Your task to perform on an android device: turn notification dots on Image 0: 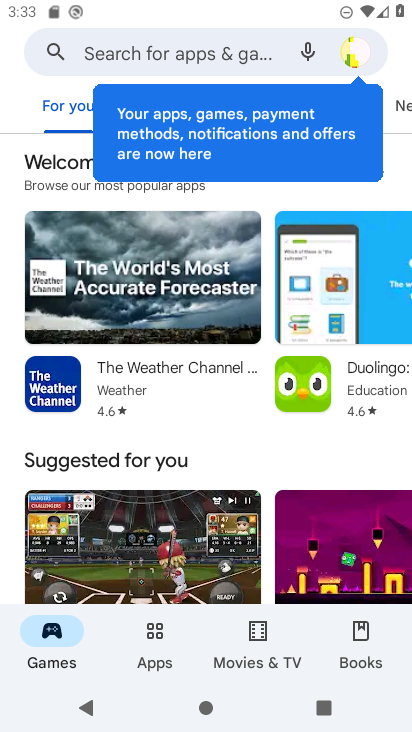
Step 0: press home button
Your task to perform on an android device: turn notification dots on Image 1: 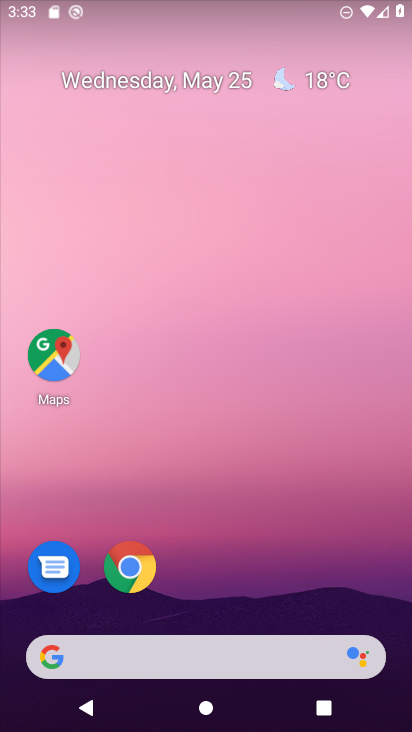
Step 1: drag from (367, 569) to (341, 144)
Your task to perform on an android device: turn notification dots on Image 2: 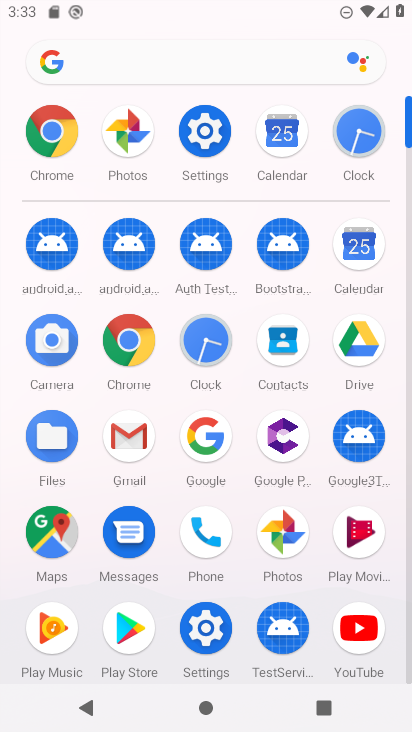
Step 2: click (209, 630)
Your task to perform on an android device: turn notification dots on Image 3: 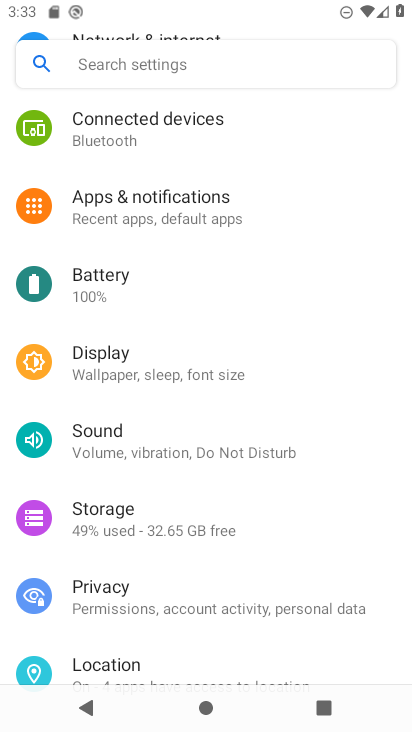
Step 3: drag from (311, 237) to (317, 356)
Your task to perform on an android device: turn notification dots on Image 4: 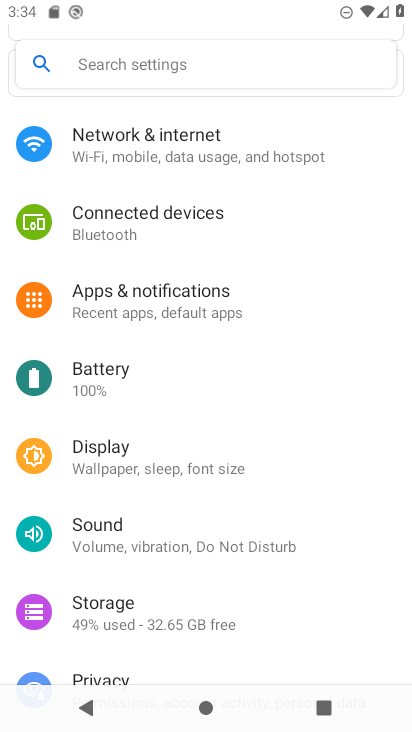
Step 4: drag from (319, 293) to (325, 405)
Your task to perform on an android device: turn notification dots on Image 5: 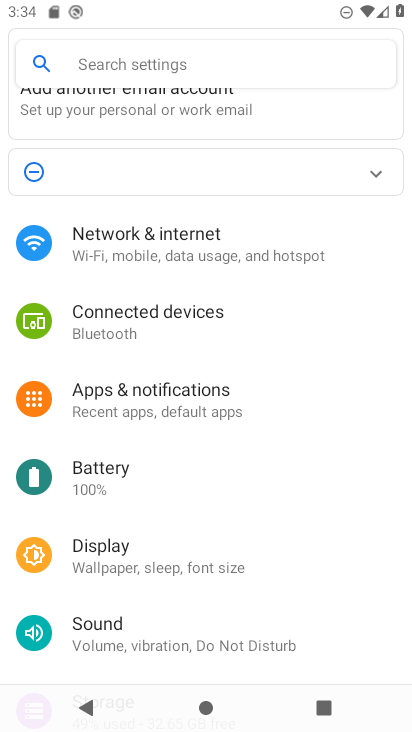
Step 5: drag from (340, 323) to (347, 430)
Your task to perform on an android device: turn notification dots on Image 6: 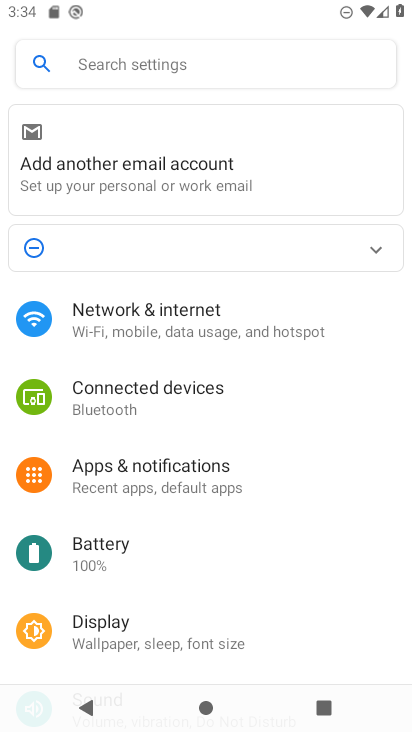
Step 6: drag from (347, 377) to (358, 476)
Your task to perform on an android device: turn notification dots on Image 7: 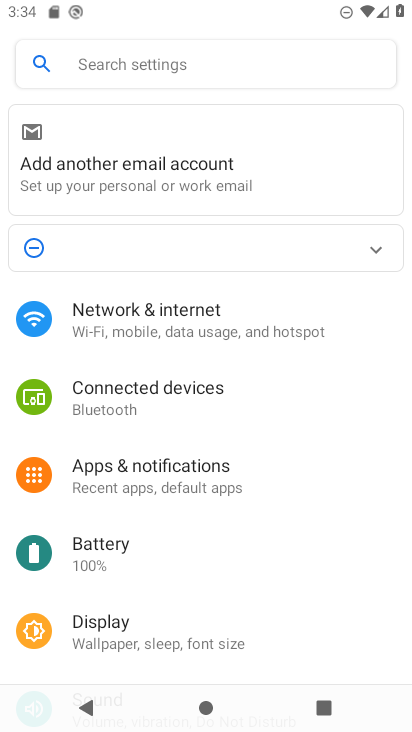
Step 7: click (213, 475)
Your task to perform on an android device: turn notification dots on Image 8: 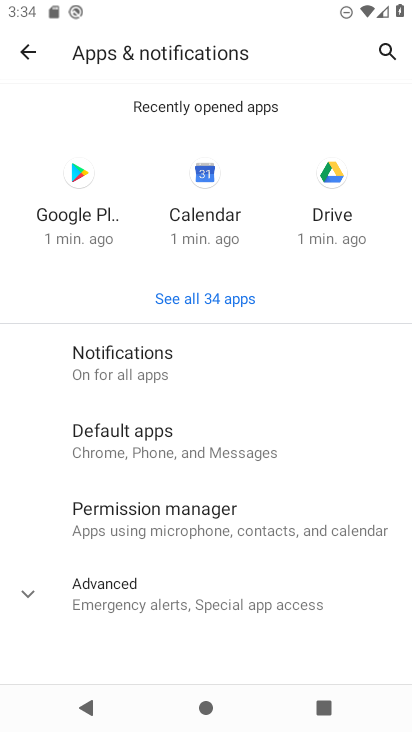
Step 8: click (172, 376)
Your task to perform on an android device: turn notification dots on Image 9: 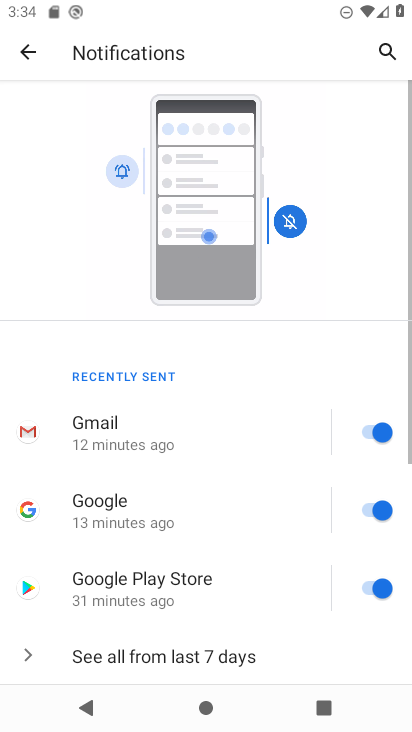
Step 9: drag from (282, 511) to (292, 388)
Your task to perform on an android device: turn notification dots on Image 10: 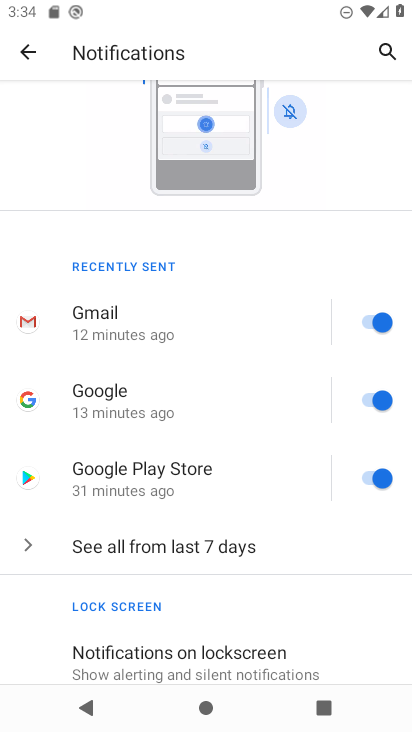
Step 10: drag from (286, 552) to (309, 434)
Your task to perform on an android device: turn notification dots on Image 11: 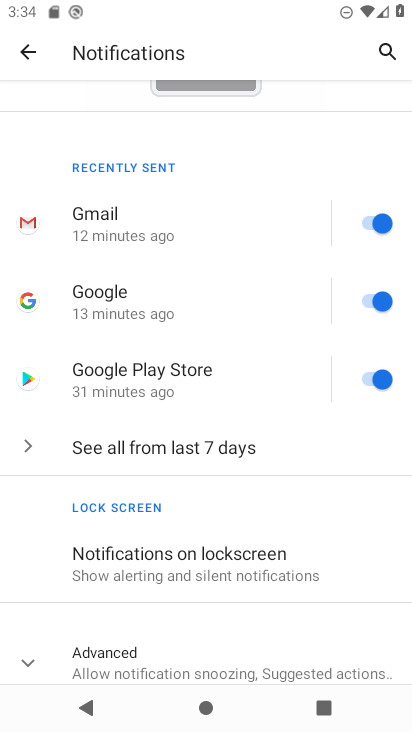
Step 11: drag from (303, 579) to (297, 443)
Your task to perform on an android device: turn notification dots on Image 12: 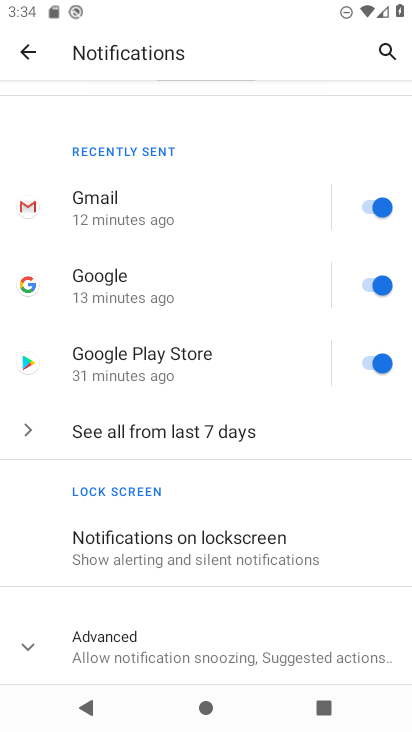
Step 12: click (162, 660)
Your task to perform on an android device: turn notification dots on Image 13: 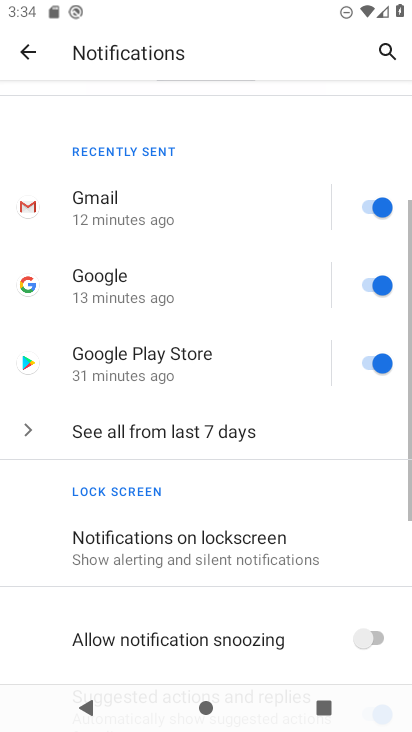
Step 13: task complete